Your task to perform on an android device: turn off location Image 0: 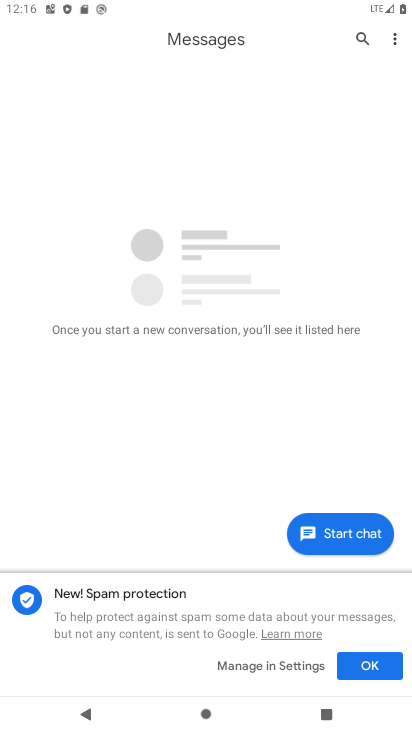
Step 0: press back button
Your task to perform on an android device: turn off location Image 1: 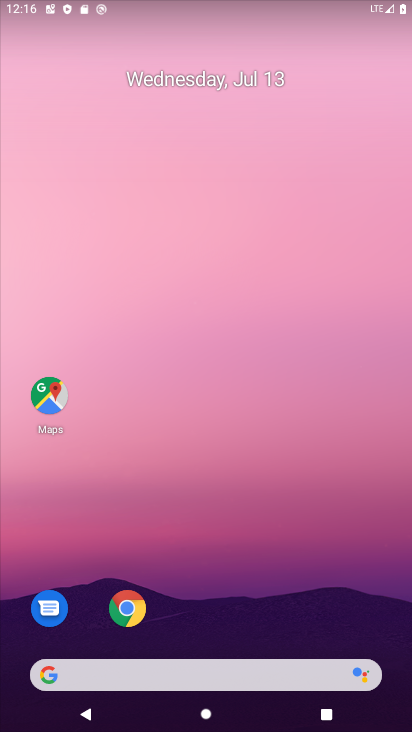
Step 1: drag from (220, 628) to (273, 124)
Your task to perform on an android device: turn off location Image 2: 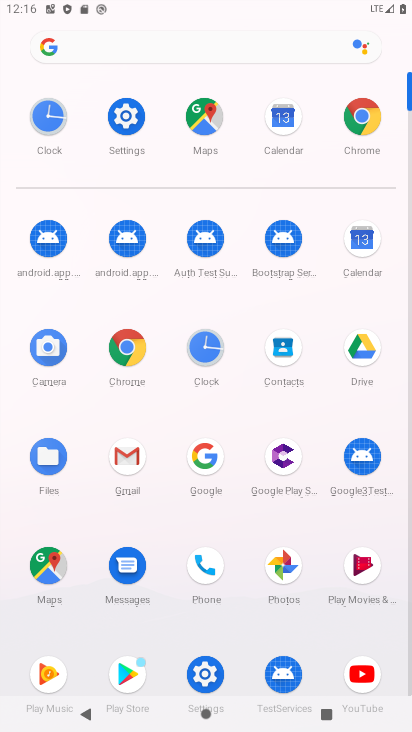
Step 2: click (107, 138)
Your task to perform on an android device: turn off location Image 3: 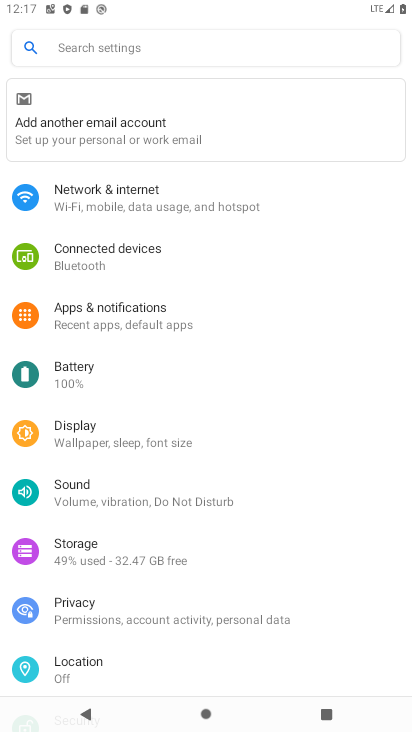
Step 3: click (91, 670)
Your task to perform on an android device: turn off location Image 4: 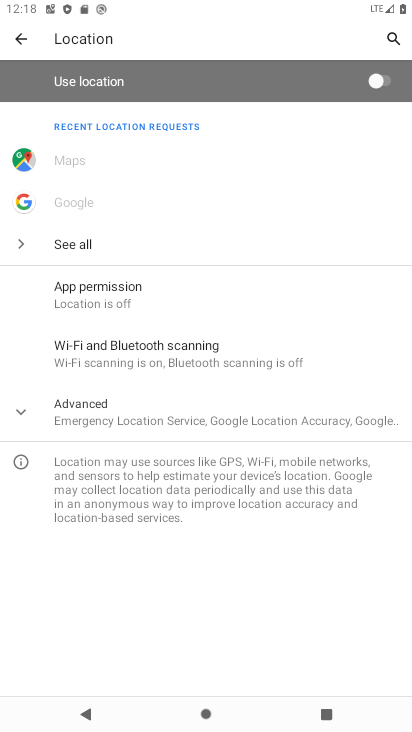
Step 4: task complete